Your task to perform on an android device: Open Reddit.com Image 0: 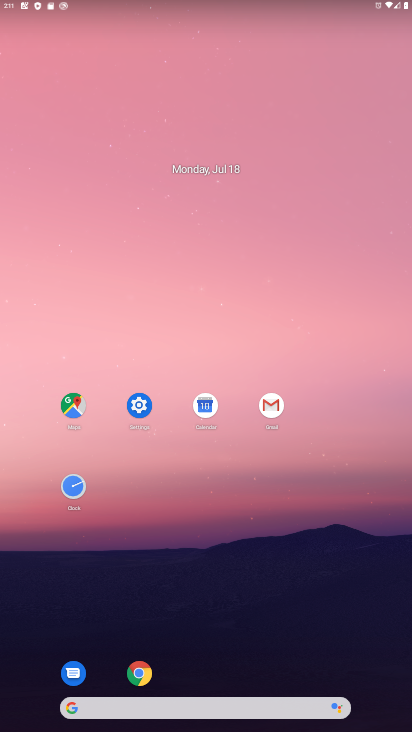
Step 0: click (144, 673)
Your task to perform on an android device: Open Reddit.com Image 1: 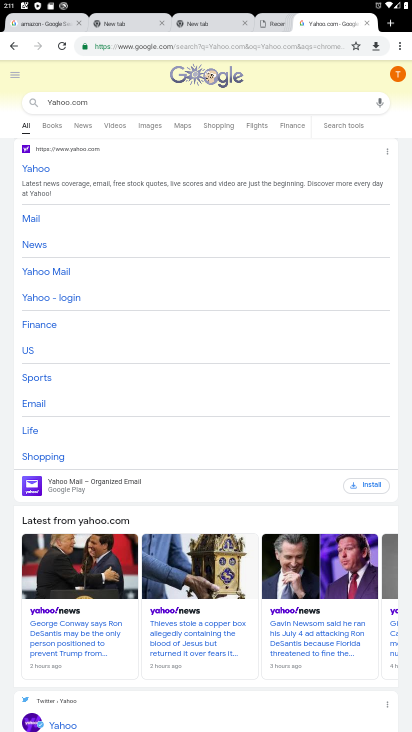
Step 1: click (331, 42)
Your task to perform on an android device: Open Reddit.com Image 2: 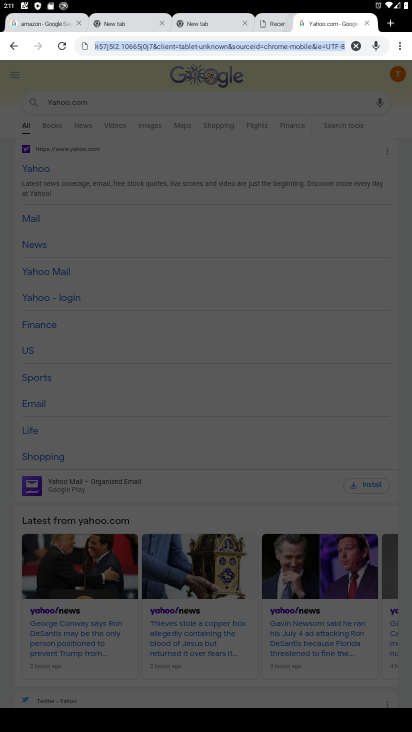
Step 2: click (354, 46)
Your task to perform on an android device: Open Reddit.com Image 3: 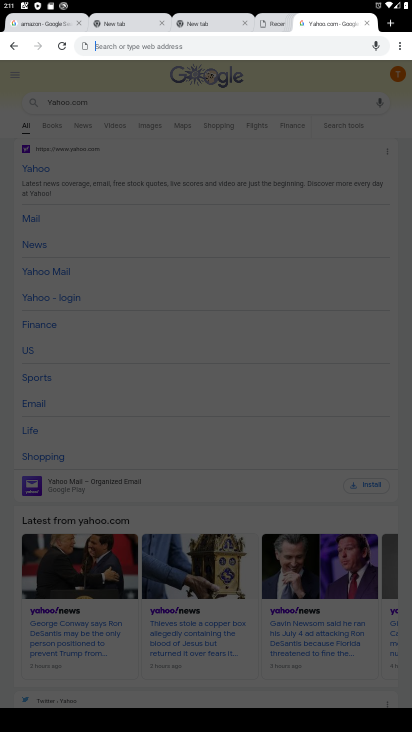
Step 3: type "Reddit.com"
Your task to perform on an android device: Open Reddit.com Image 4: 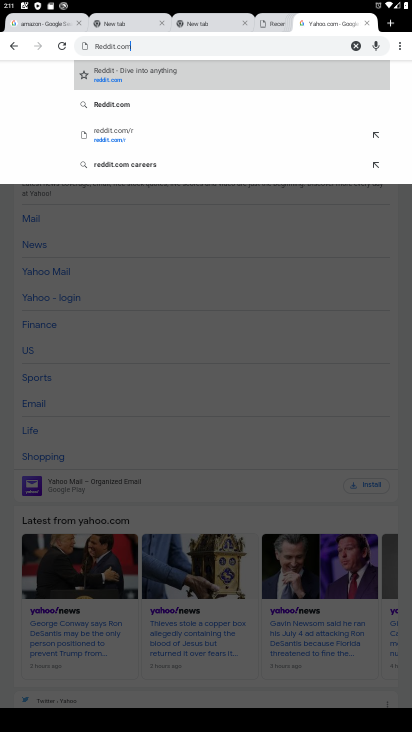
Step 4: click (97, 108)
Your task to perform on an android device: Open Reddit.com Image 5: 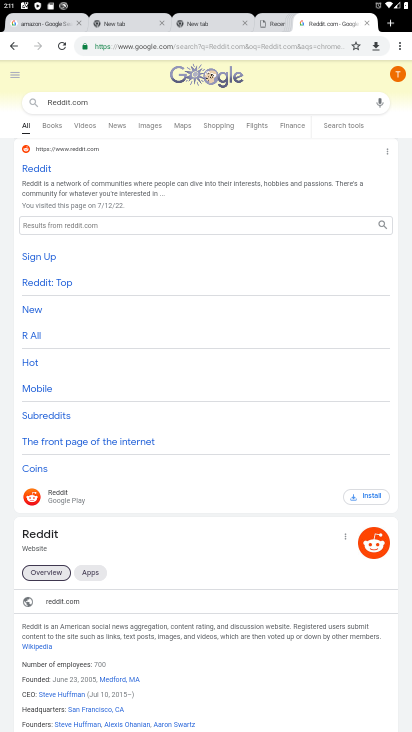
Step 5: task complete